Your task to perform on an android device: turn off picture-in-picture Image 0: 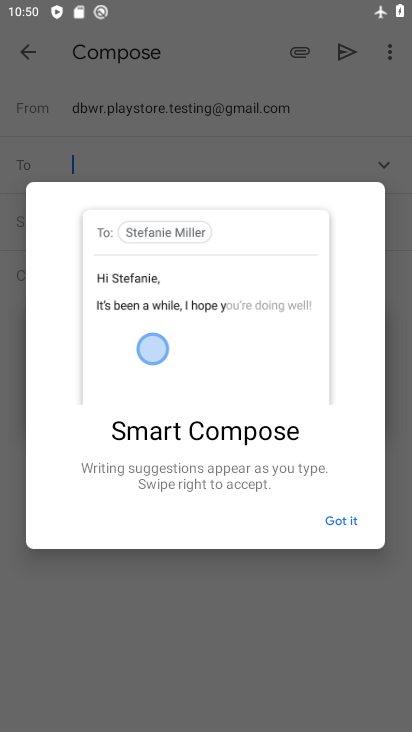
Step 0: press home button
Your task to perform on an android device: turn off picture-in-picture Image 1: 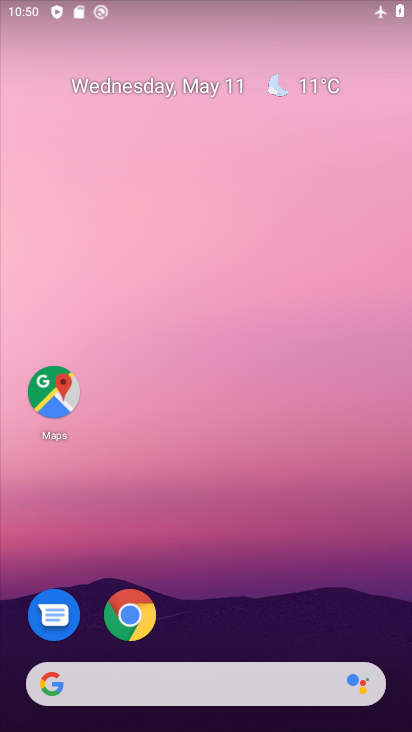
Step 1: click (134, 619)
Your task to perform on an android device: turn off picture-in-picture Image 2: 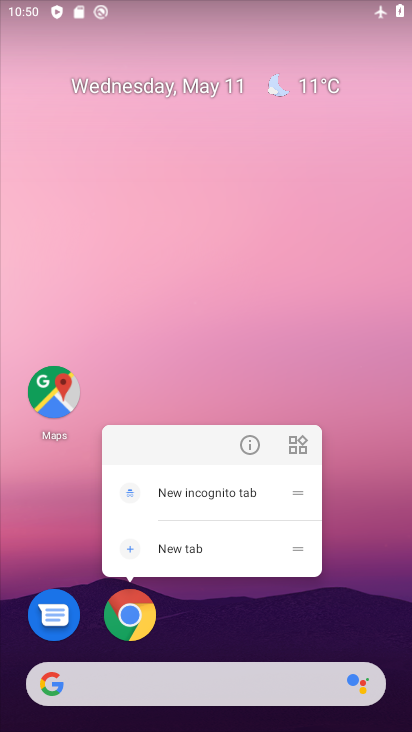
Step 2: click (248, 444)
Your task to perform on an android device: turn off picture-in-picture Image 3: 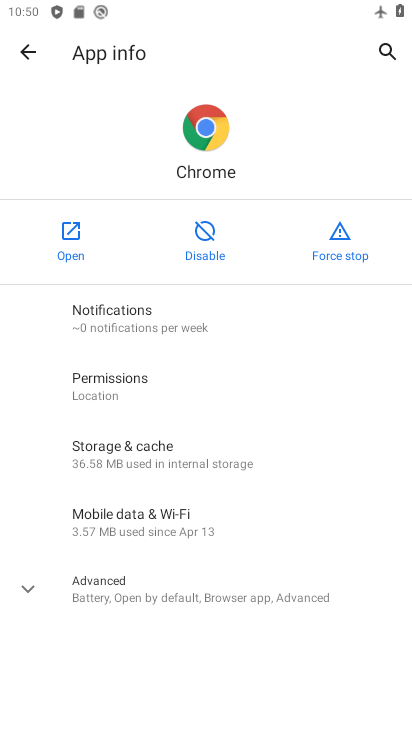
Step 3: click (124, 593)
Your task to perform on an android device: turn off picture-in-picture Image 4: 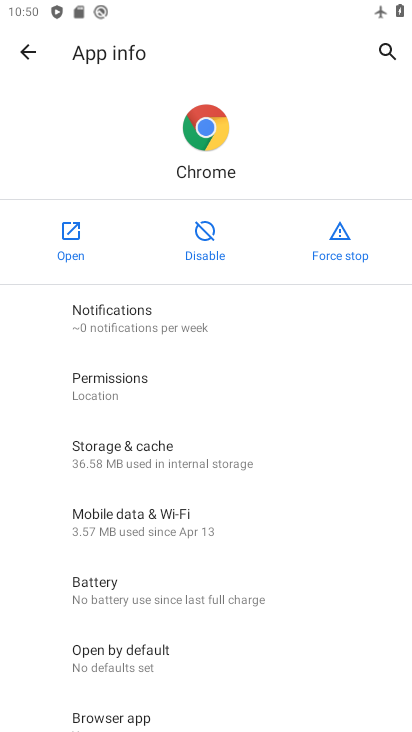
Step 4: drag from (305, 631) to (410, 176)
Your task to perform on an android device: turn off picture-in-picture Image 5: 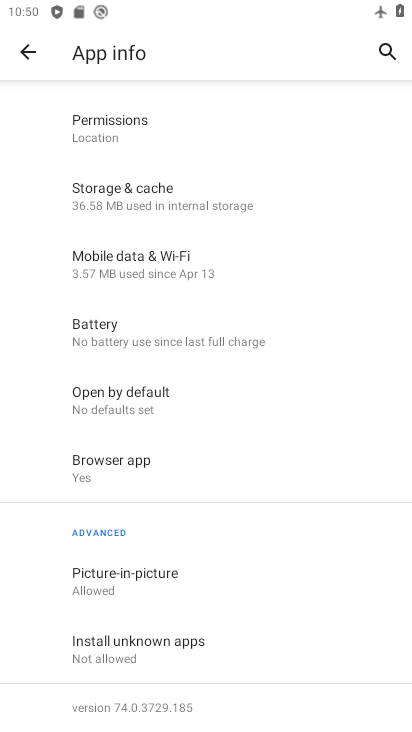
Step 5: click (152, 594)
Your task to perform on an android device: turn off picture-in-picture Image 6: 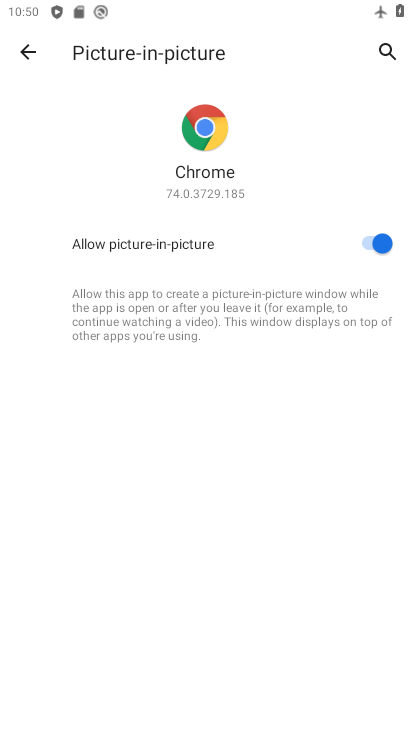
Step 6: click (375, 246)
Your task to perform on an android device: turn off picture-in-picture Image 7: 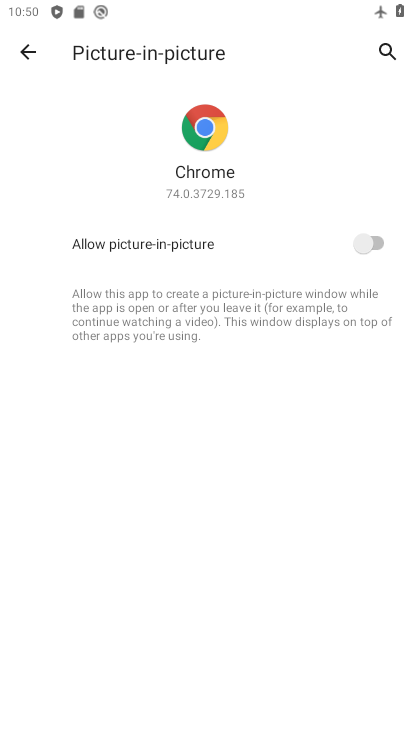
Step 7: task complete